Your task to perform on an android device: toggle data saver in the chrome app Image 0: 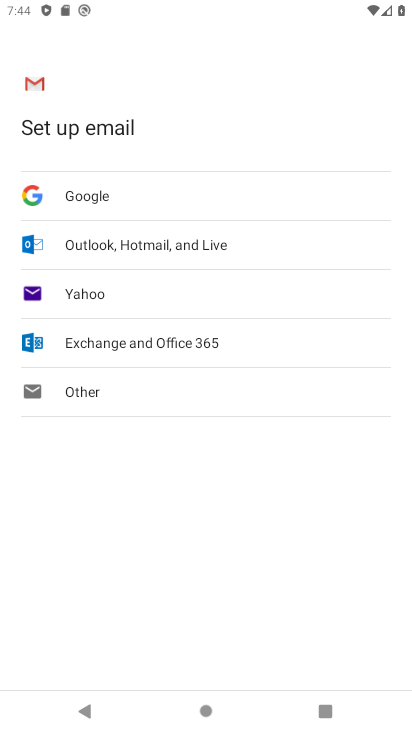
Step 0: press home button
Your task to perform on an android device: toggle data saver in the chrome app Image 1: 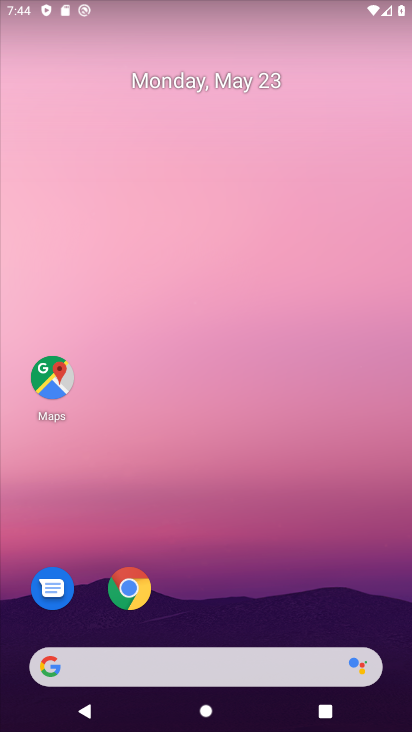
Step 1: click (131, 580)
Your task to perform on an android device: toggle data saver in the chrome app Image 2: 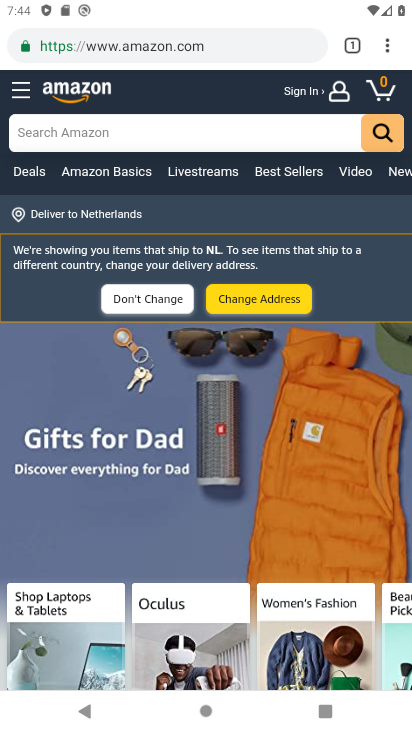
Step 2: click (388, 44)
Your task to perform on an android device: toggle data saver in the chrome app Image 3: 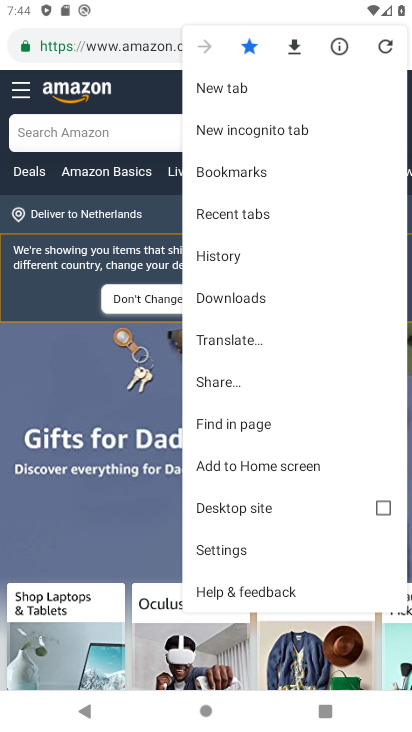
Step 3: click (216, 542)
Your task to perform on an android device: toggle data saver in the chrome app Image 4: 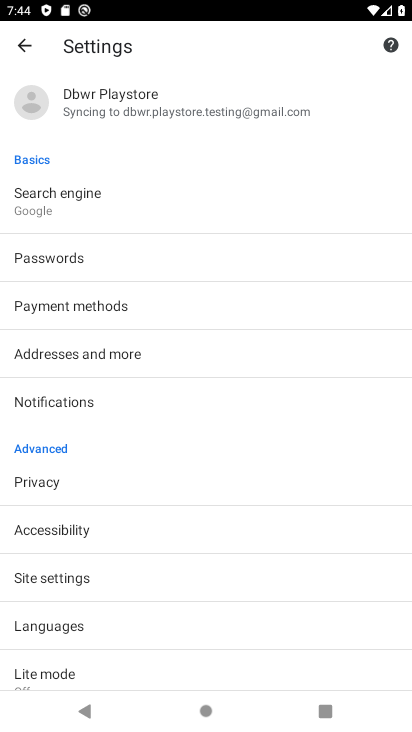
Step 4: click (55, 668)
Your task to perform on an android device: toggle data saver in the chrome app Image 5: 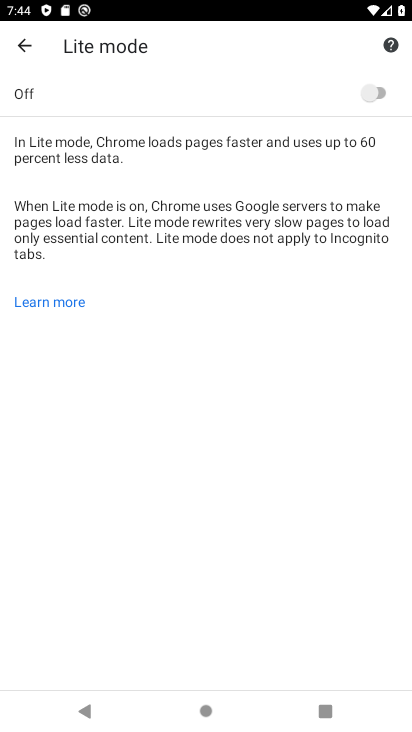
Step 5: click (379, 91)
Your task to perform on an android device: toggle data saver in the chrome app Image 6: 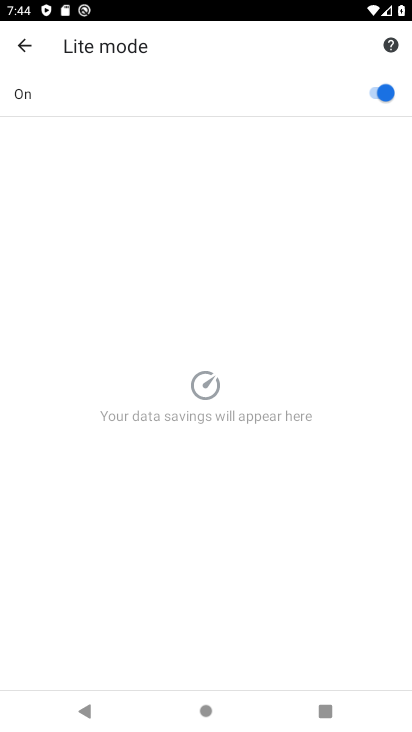
Step 6: task complete